Your task to perform on an android device: visit the assistant section in the google photos Image 0: 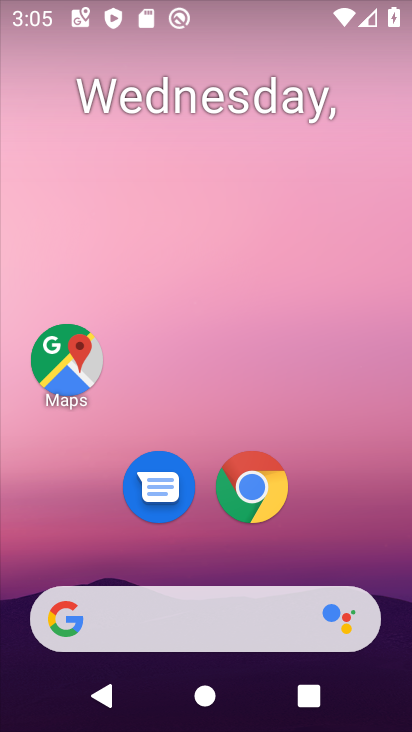
Step 0: drag from (303, 499) to (213, 29)
Your task to perform on an android device: visit the assistant section in the google photos Image 1: 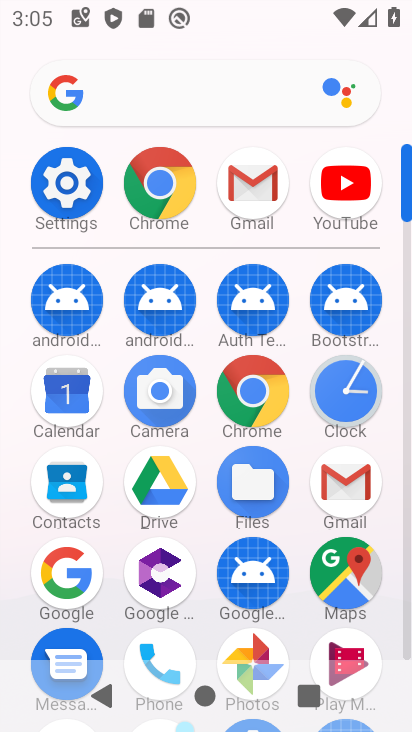
Step 1: click (265, 649)
Your task to perform on an android device: visit the assistant section in the google photos Image 2: 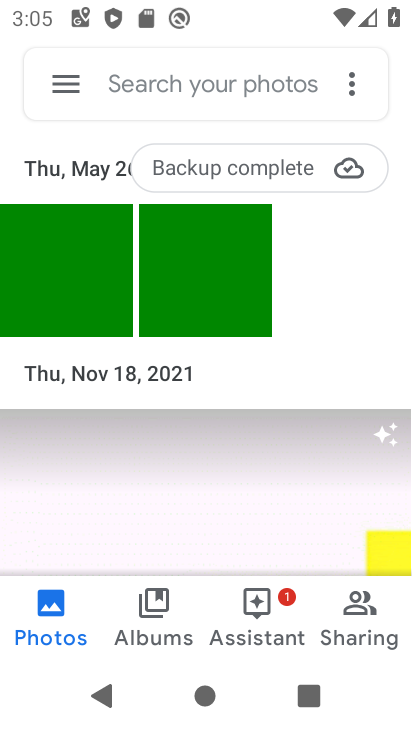
Step 2: click (271, 623)
Your task to perform on an android device: visit the assistant section in the google photos Image 3: 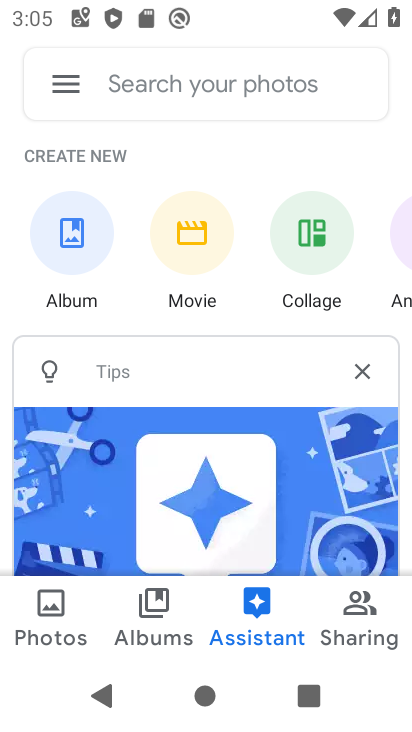
Step 3: task complete